Your task to perform on an android device: show emergency info Image 0: 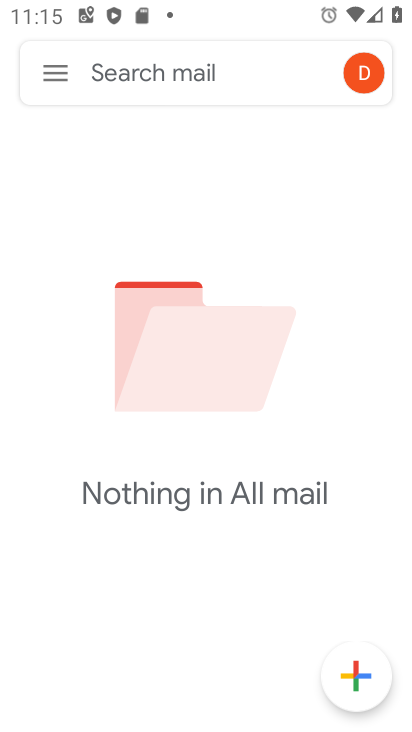
Step 0: press home button
Your task to perform on an android device: show emergency info Image 1: 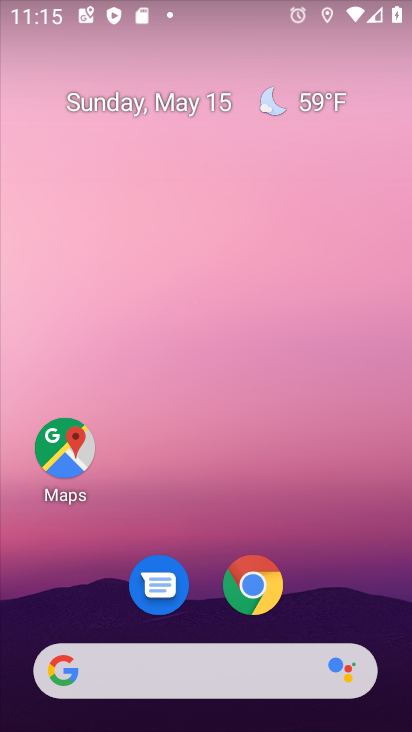
Step 1: drag from (260, 508) to (217, 61)
Your task to perform on an android device: show emergency info Image 2: 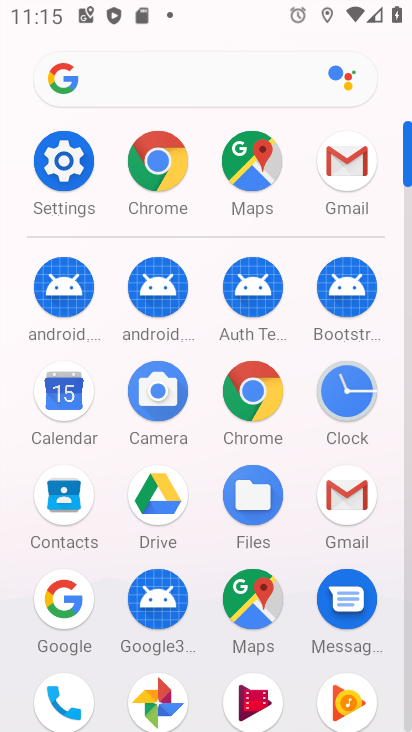
Step 2: click (57, 159)
Your task to perform on an android device: show emergency info Image 3: 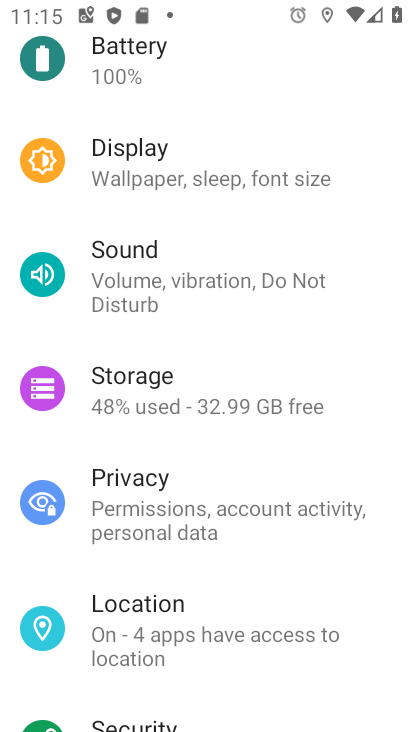
Step 3: drag from (285, 543) to (267, 144)
Your task to perform on an android device: show emergency info Image 4: 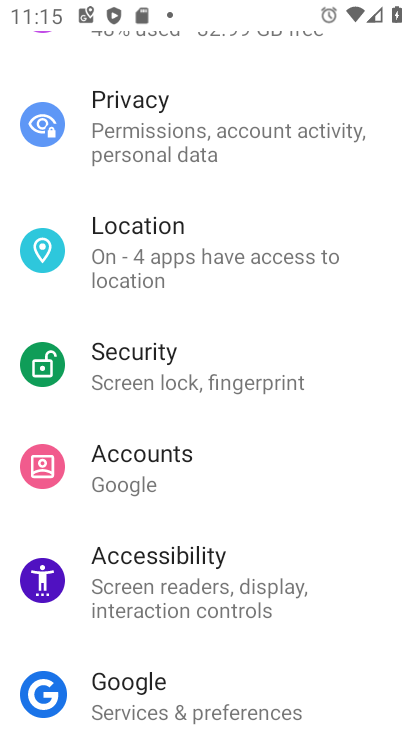
Step 4: drag from (234, 461) to (211, 151)
Your task to perform on an android device: show emergency info Image 5: 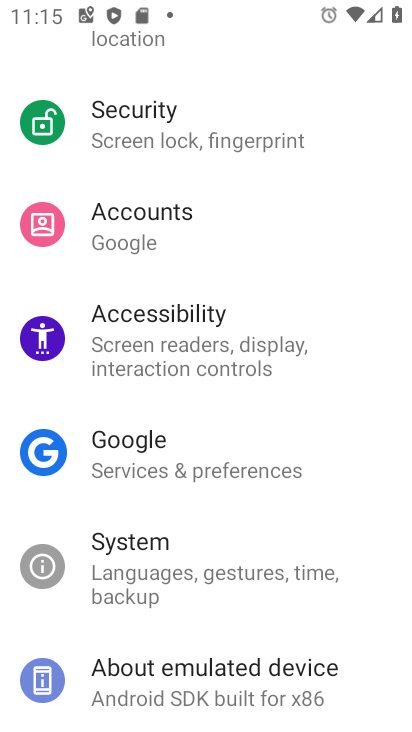
Step 5: click (213, 688)
Your task to perform on an android device: show emergency info Image 6: 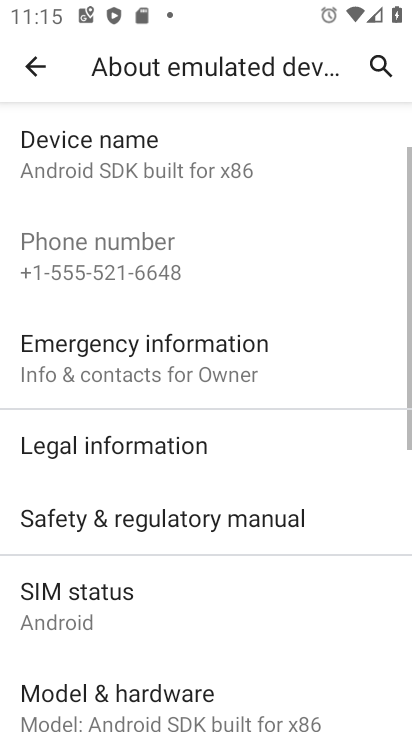
Step 6: click (195, 344)
Your task to perform on an android device: show emergency info Image 7: 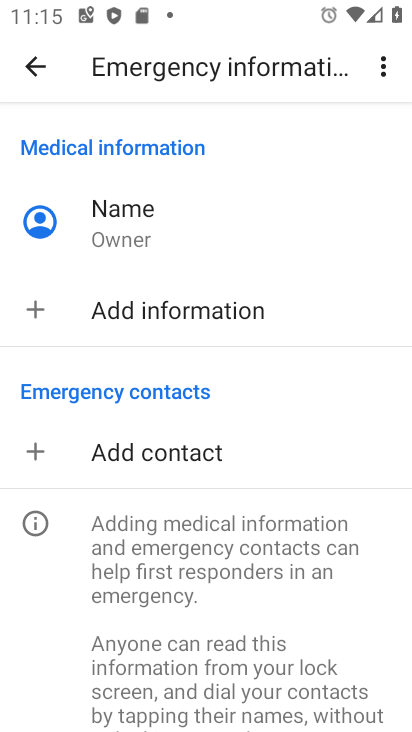
Step 7: task complete